Your task to perform on an android device: check storage Image 0: 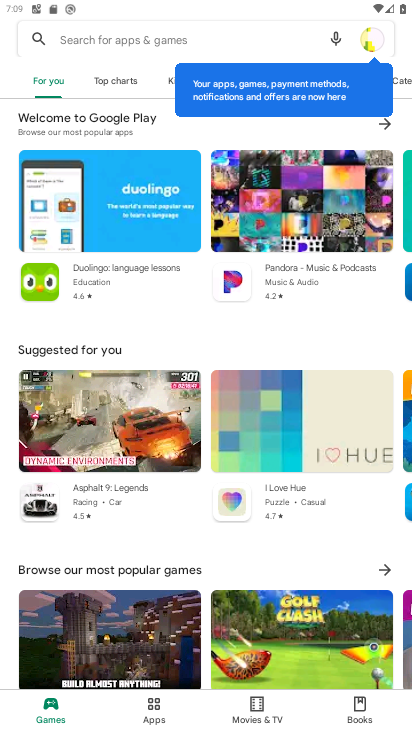
Step 0: press home button
Your task to perform on an android device: check storage Image 1: 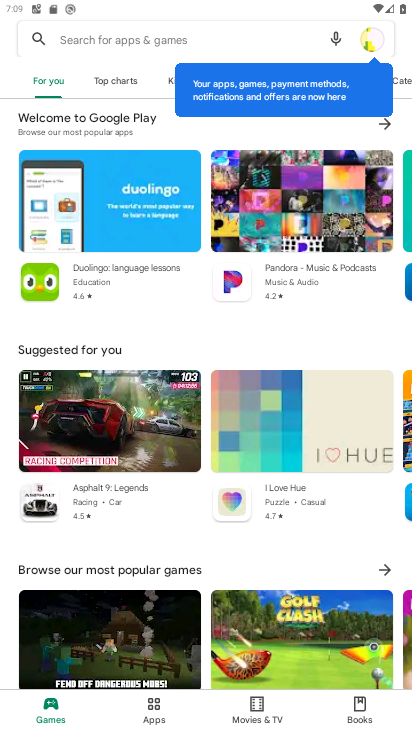
Step 1: press home button
Your task to perform on an android device: check storage Image 2: 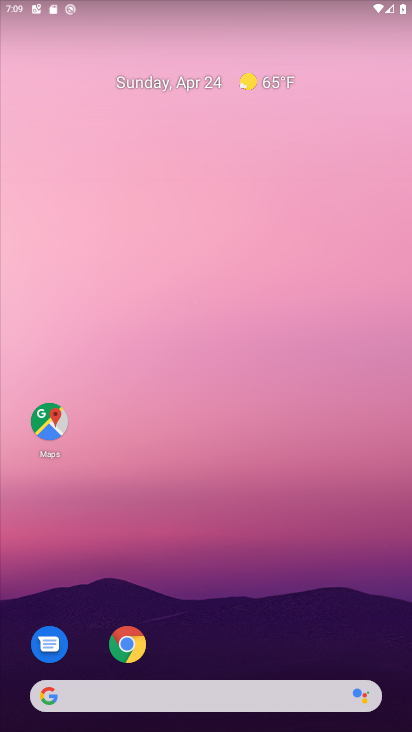
Step 2: drag from (206, 653) to (209, 149)
Your task to perform on an android device: check storage Image 3: 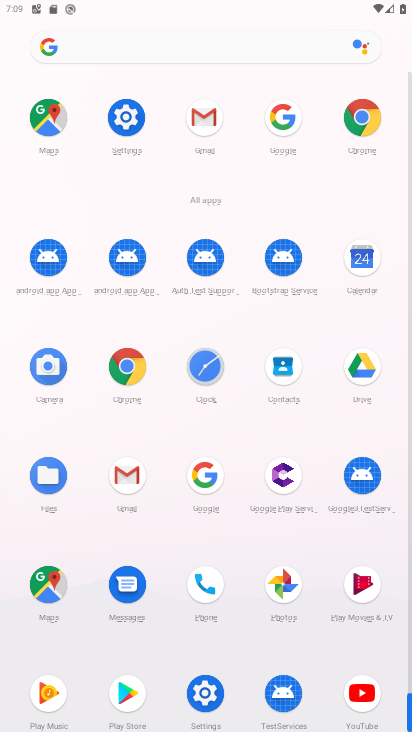
Step 3: click (124, 111)
Your task to perform on an android device: check storage Image 4: 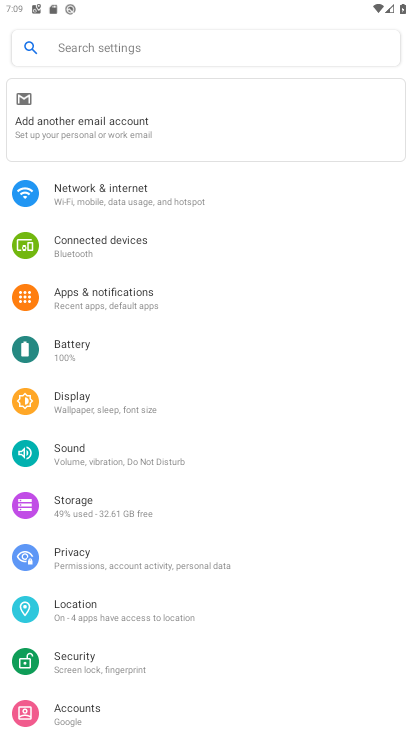
Step 4: click (94, 502)
Your task to perform on an android device: check storage Image 5: 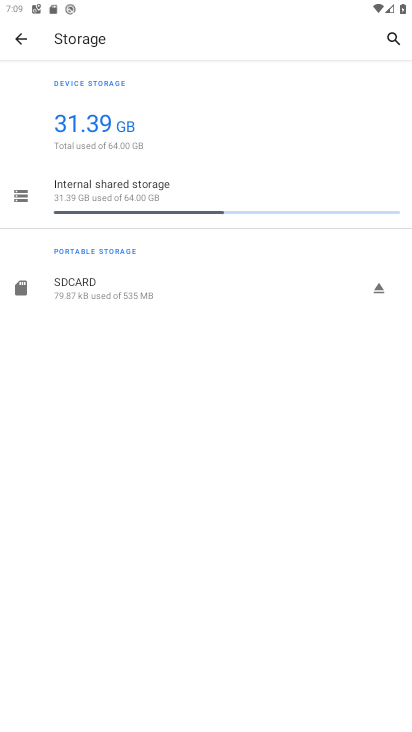
Step 5: task complete